Your task to perform on an android device: change the upload size in google photos Image 0: 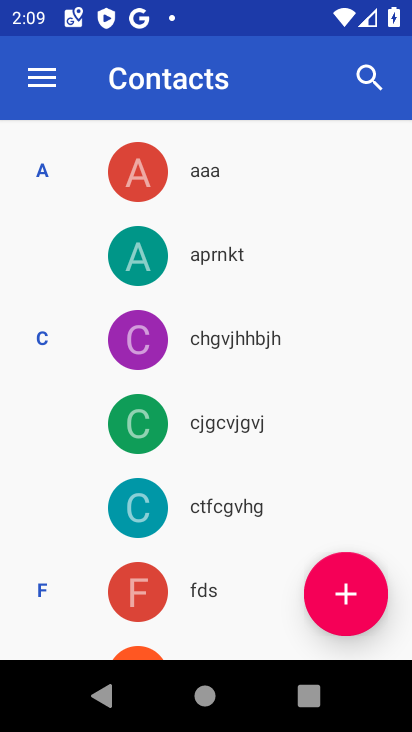
Step 0: press home button
Your task to perform on an android device: change the upload size in google photos Image 1: 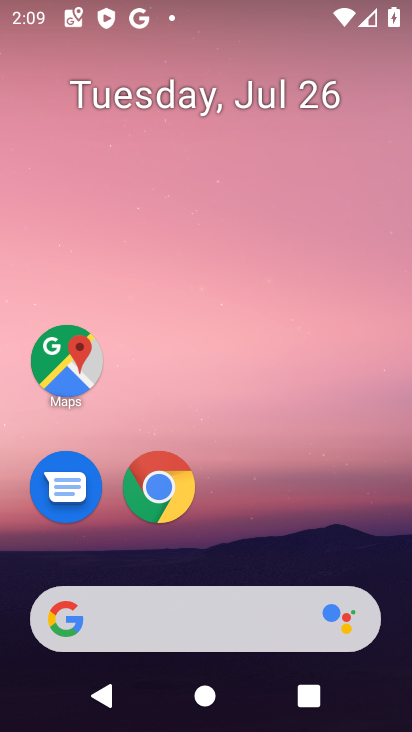
Step 1: drag from (264, 521) to (324, 2)
Your task to perform on an android device: change the upload size in google photos Image 2: 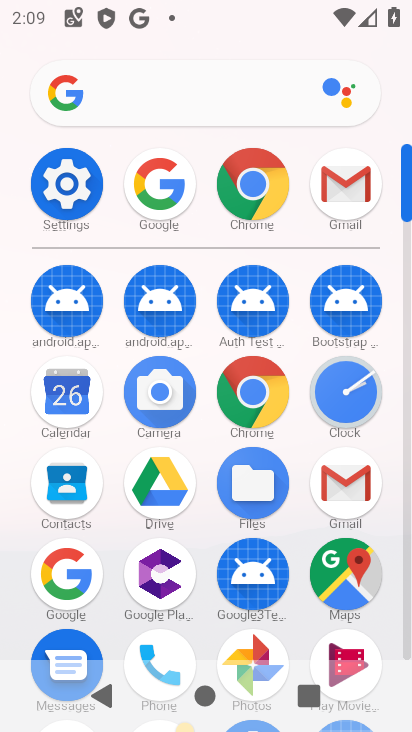
Step 2: drag from (74, 580) to (117, 267)
Your task to perform on an android device: change the upload size in google photos Image 3: 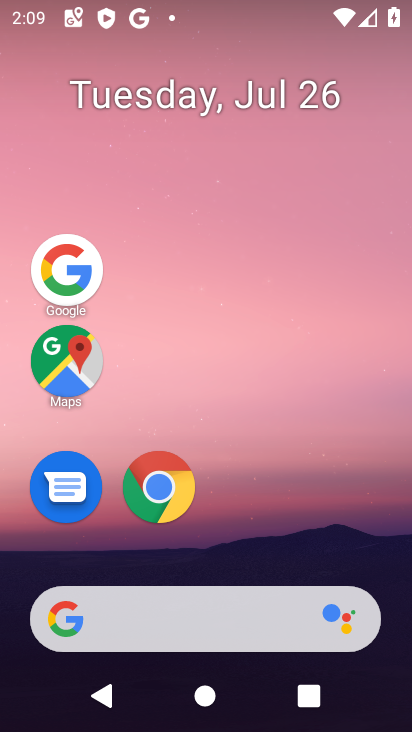
Step 3: drag from (207, 591) to (243, 74)
Your task to perform on an android device: change the upload size in google photos Image 4: 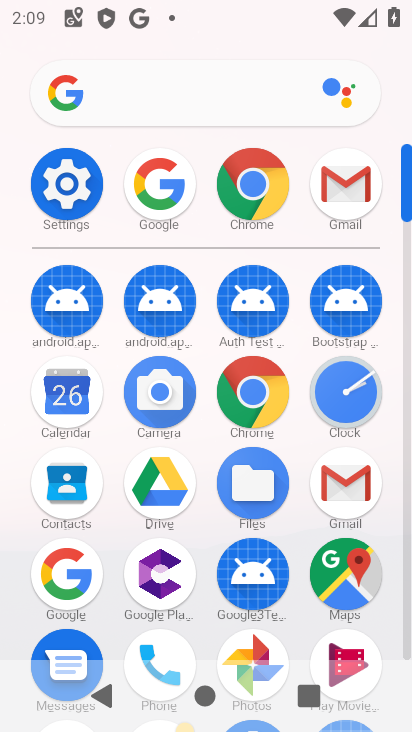
Step 4: click (249, 643)
Your task to perform on an android device: change the upload size in google photos Image 5: 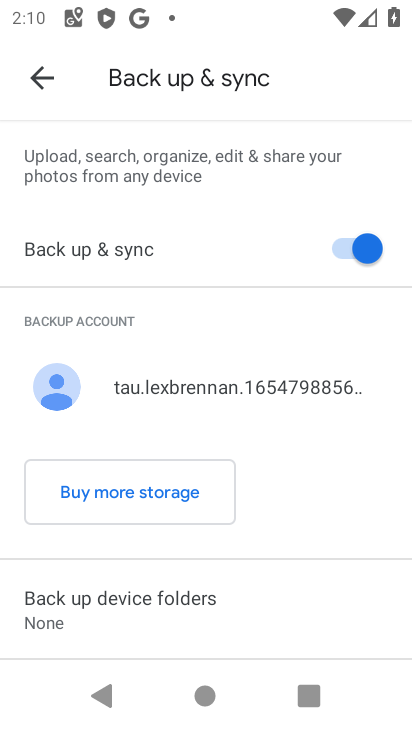
Step 5: drag from (220, 575) to (220, 169)
Your task to perform on an android device: change the upload size in google photos Image 6: 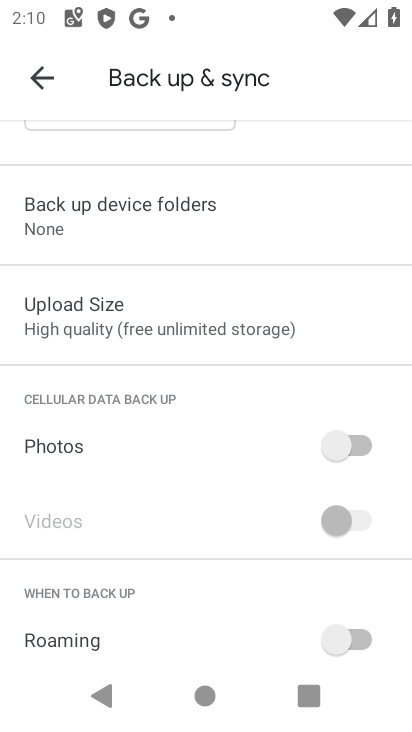
Step 6: click (183, 316)
Your task to perform on an android device: change the upload size in google photos Image 7: 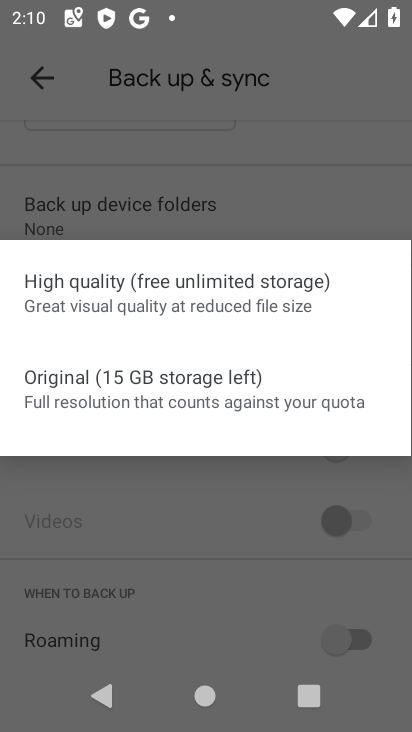
Step 7: click (210, 399)
Your task to perform on an android device: change the upload size in google photos Image 8: 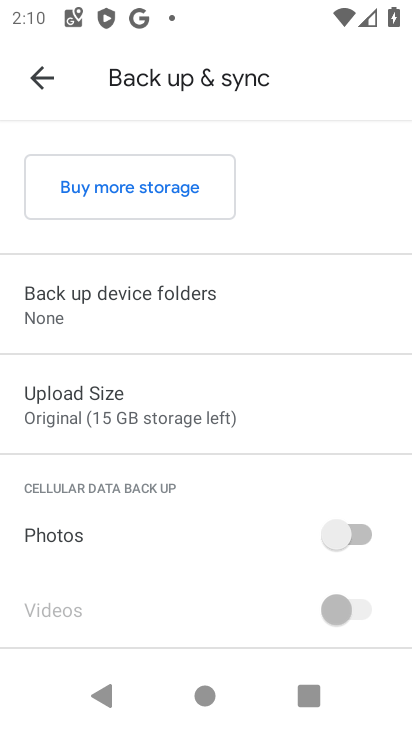
Step 8: task complete